Your task to perform on an android device: find snoozed emails in the gmail app Image 0: 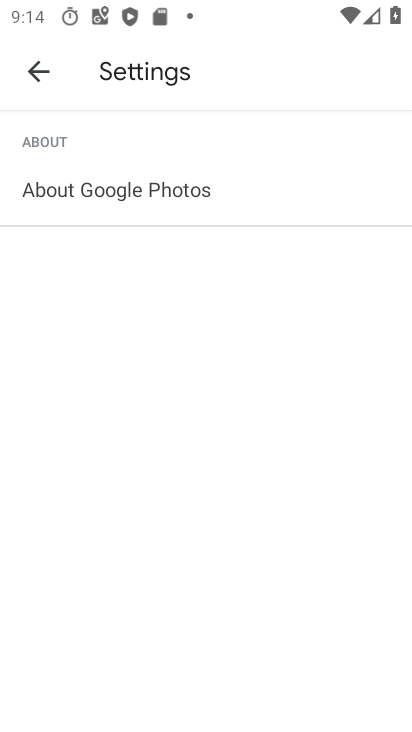
Step 0: press home button
Your task to perform on an android device: find snoozed emails in the gmail app Image 1: 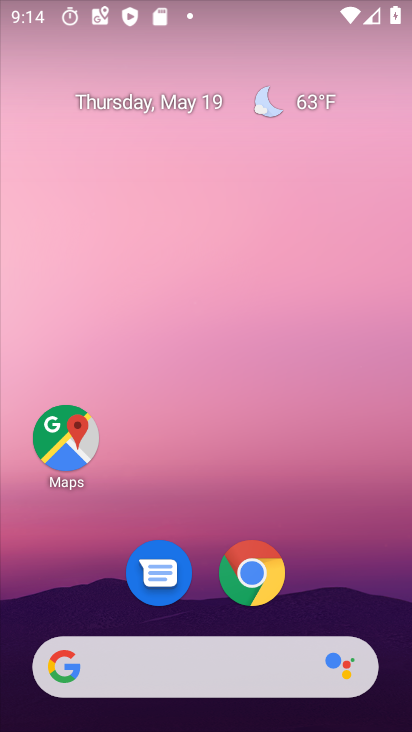
Step 1: drag from (345, 616) to (282, 12)
Your task to perform on an android device: find snoozed emails in the gmail app Image 2: 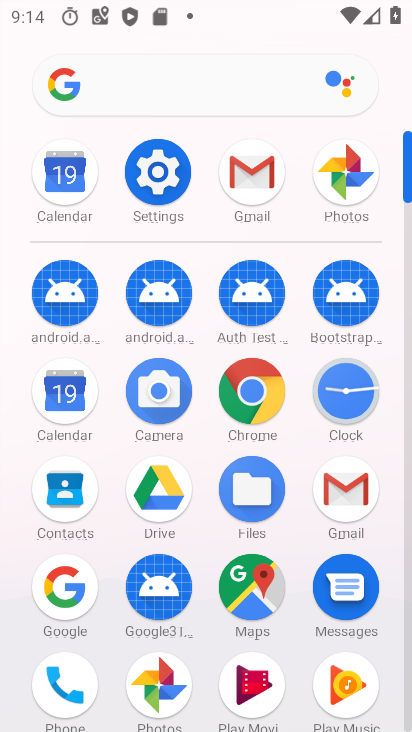
Step 2: click (240, 170)
Your task to perform on an android device: find snoozed emails in the gmail app Image 3: 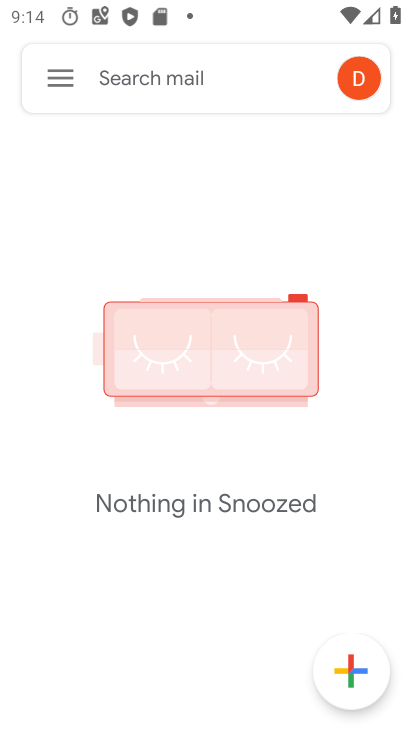
Step 3: task complete